Your task to perform on an android device: Search for razer blade on walmart.com, select the first entry, add it to the cart, then select checkout. Image 0: 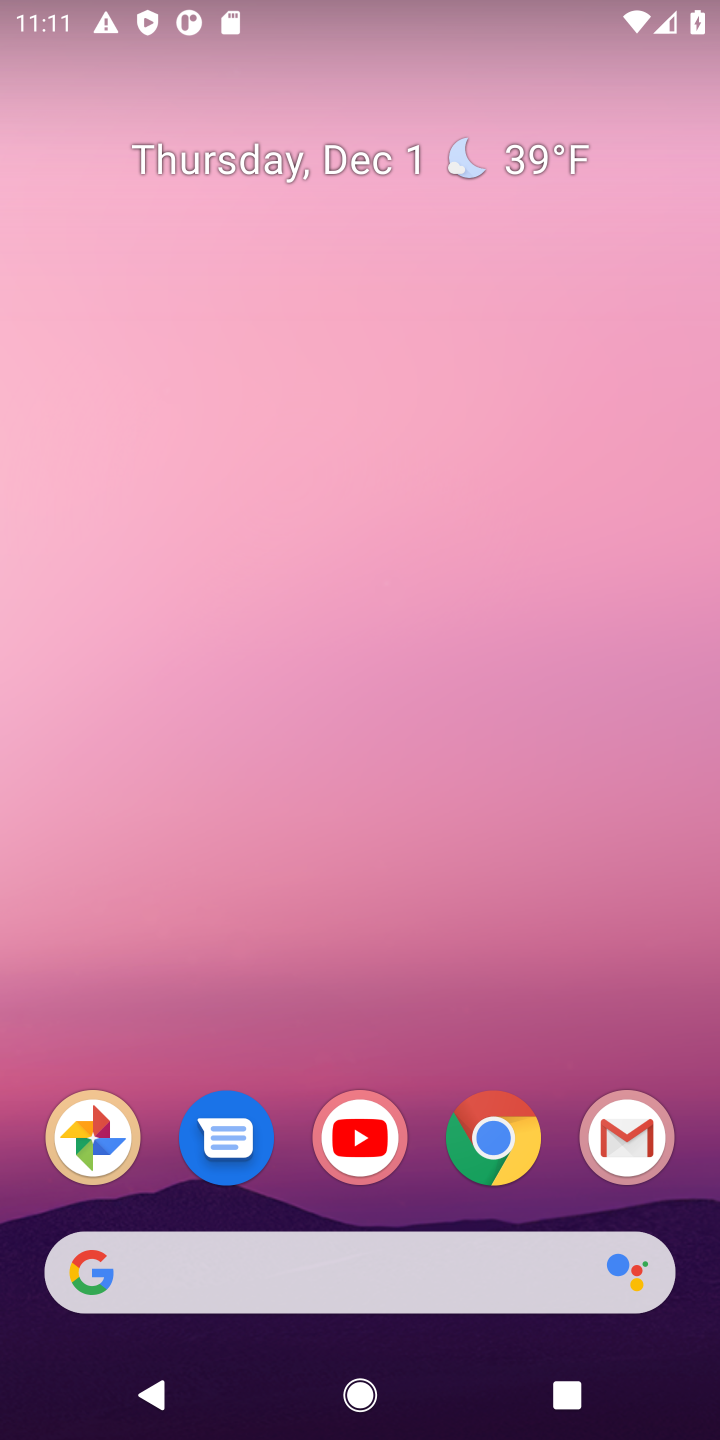
Step 0: drag from (374, 1075) to (437, 377)
Your task to perform on an android device: Search for razer blade on walmart.com, select the first entry, add it to the cart, then select checkout. Image 1: 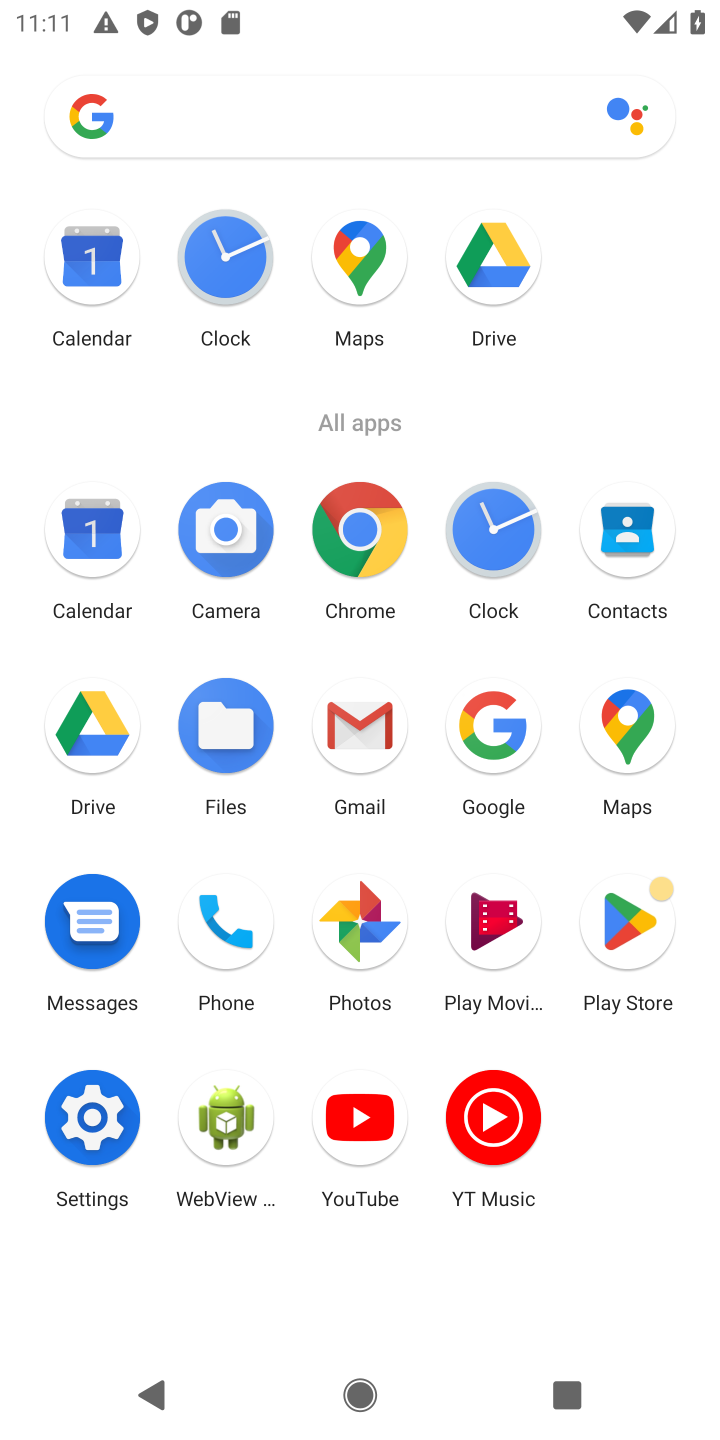
Step 1: click (474, 783)
Your task to perform on an android device: Search for razer blade on walmart.com, select the first entry, add it to the cart, then select checkout. Image 2: 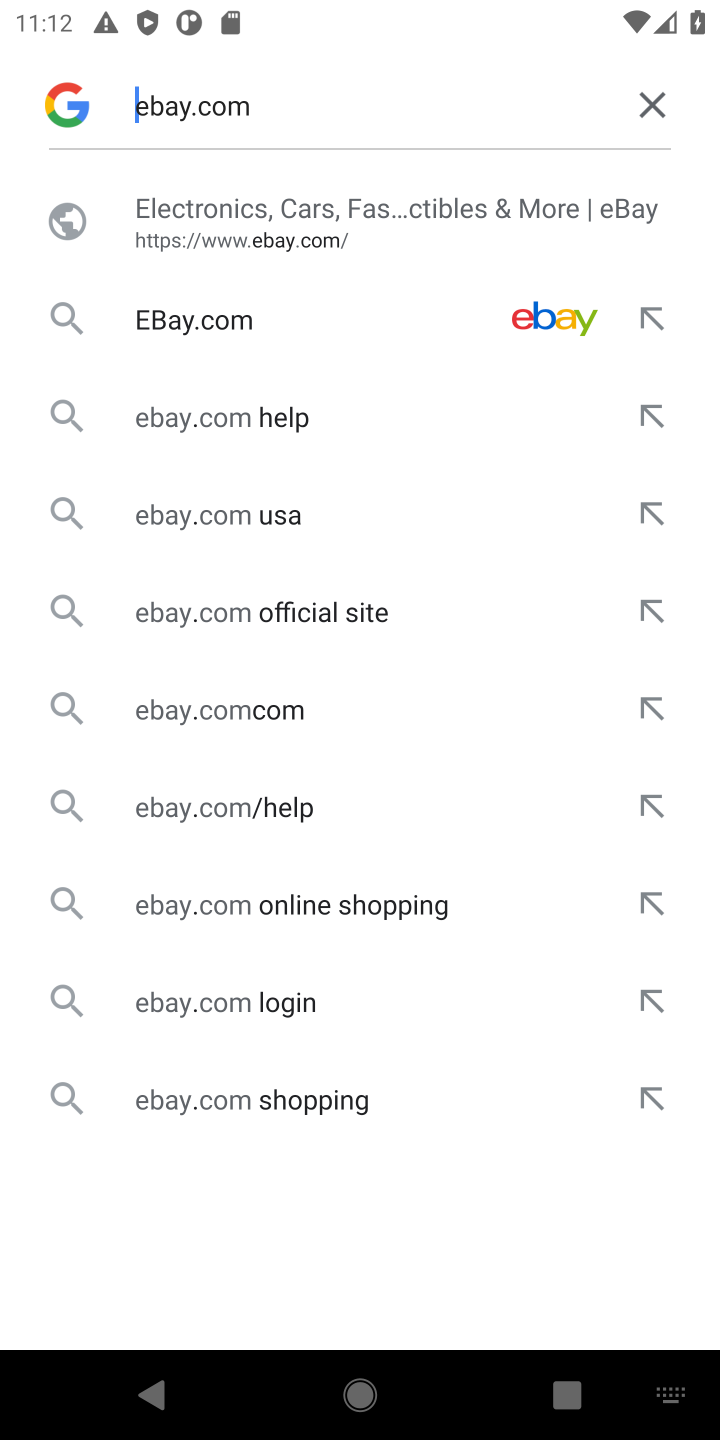
Step 2: click (640, 93)
Your task to perform on an android device: Search for razer blade on walmart.com, select the first entry, add it to the cart, then select checkout. Image 3: 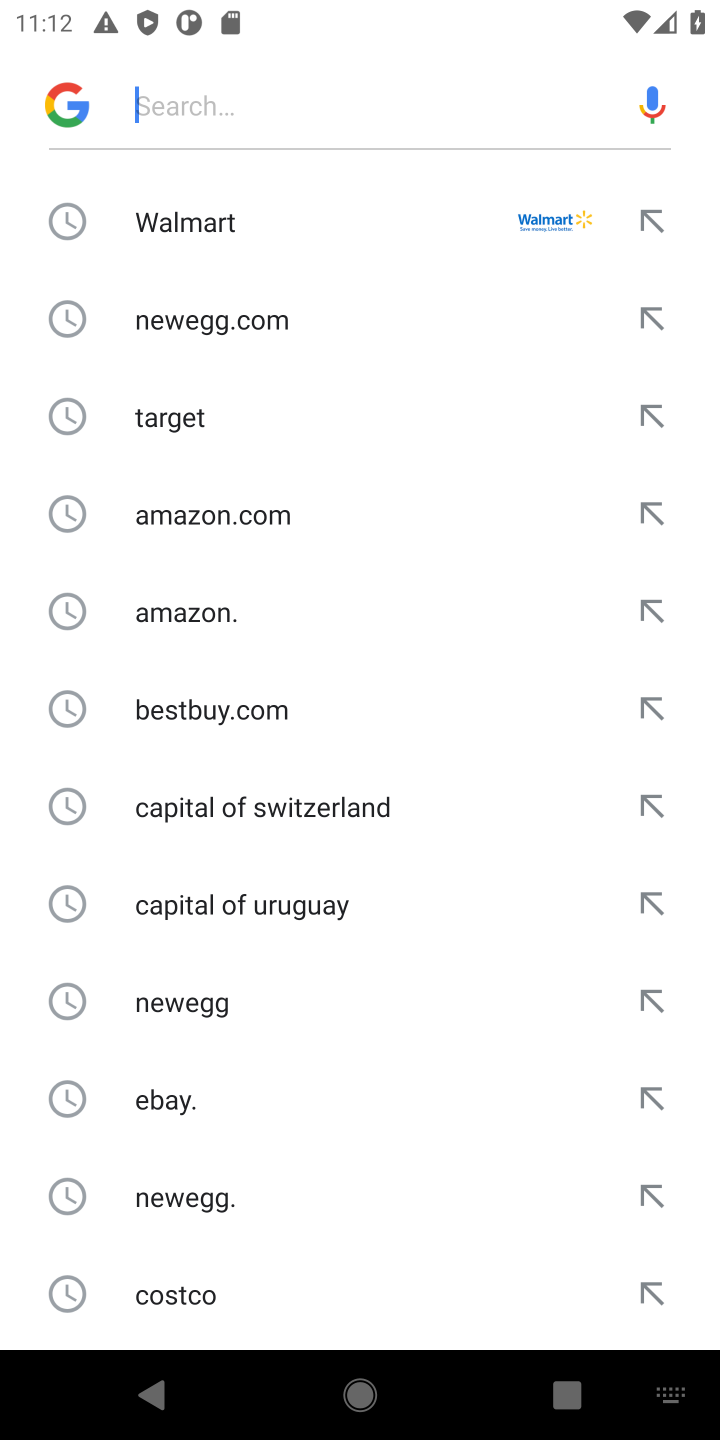
Step 3: type "walmart.com"
Your task to perform on an android device: Search for razer blade on walmart.com, select the first entry, add it to the cart, then select checkout. Image 4: 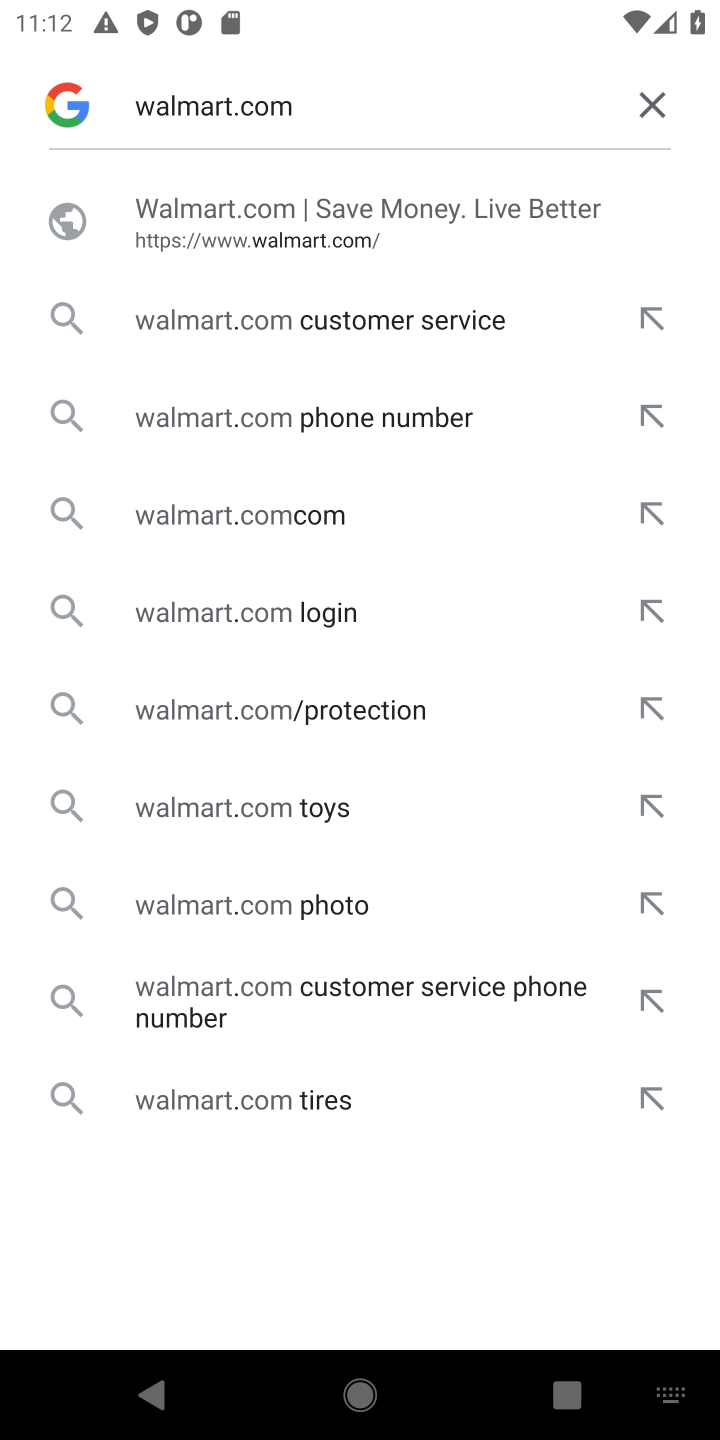
Step 4: click (385, 230)
Your task to perform on an android device: Search for razer blade on walmart.com, select the first entry, add it to the cart, then select checkout. Image 5: 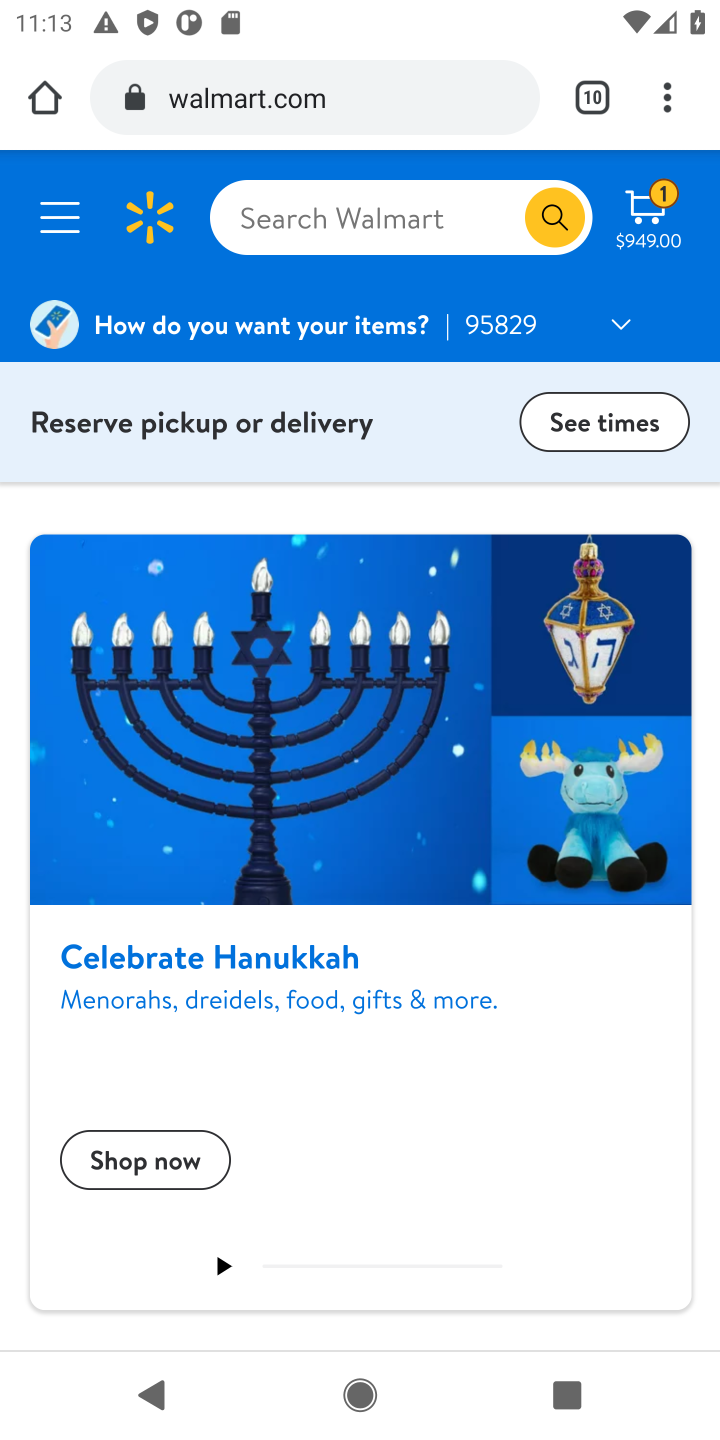
Step 5: drag from (401, 1143) to (486, 610)
Your task to perform on an android device: Search for razer blade on walmart.com, select the first entry, add it to the cart, then select checkout. Image 6: 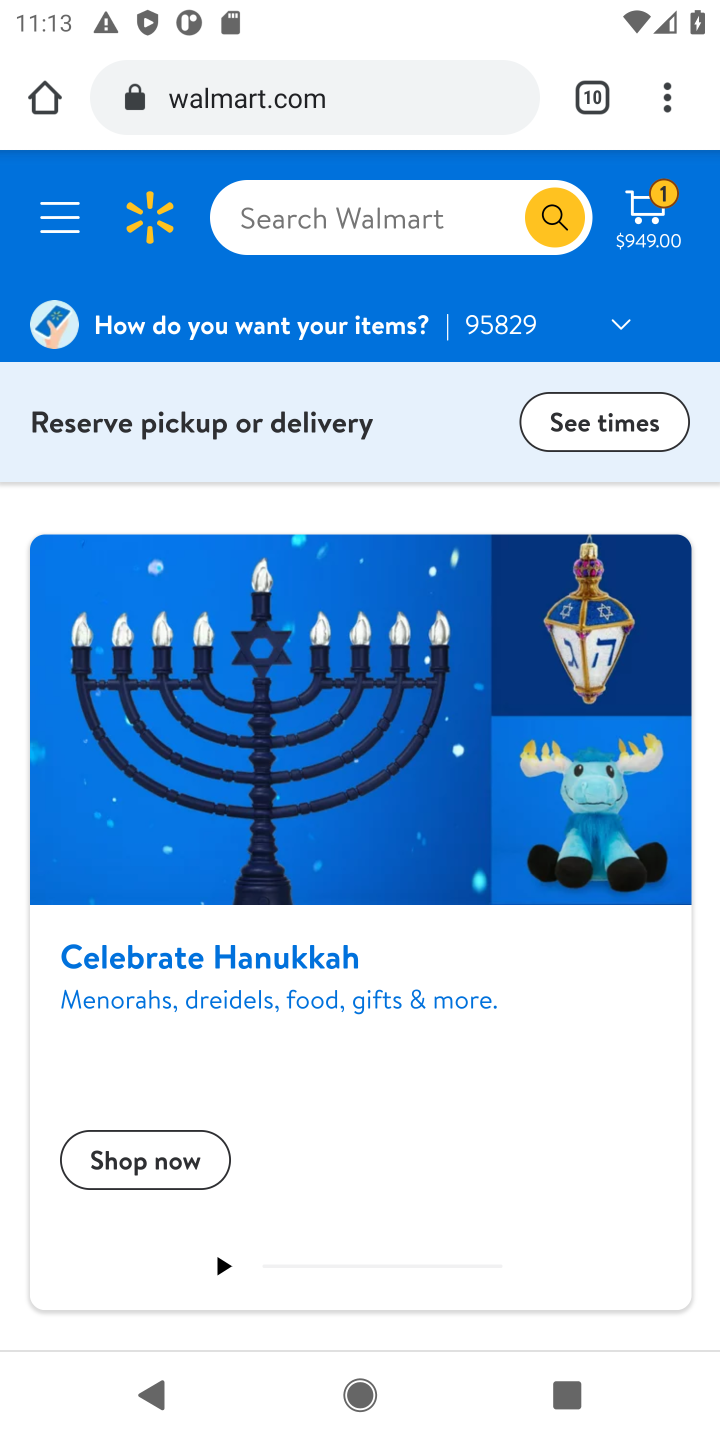
Step 6: drag from (473, 995) to (568, 175)
Your task to perform on an android device: Search for razer blade on walmart.com, select the first entry, add it to the cart, then select checkout. Image 7: 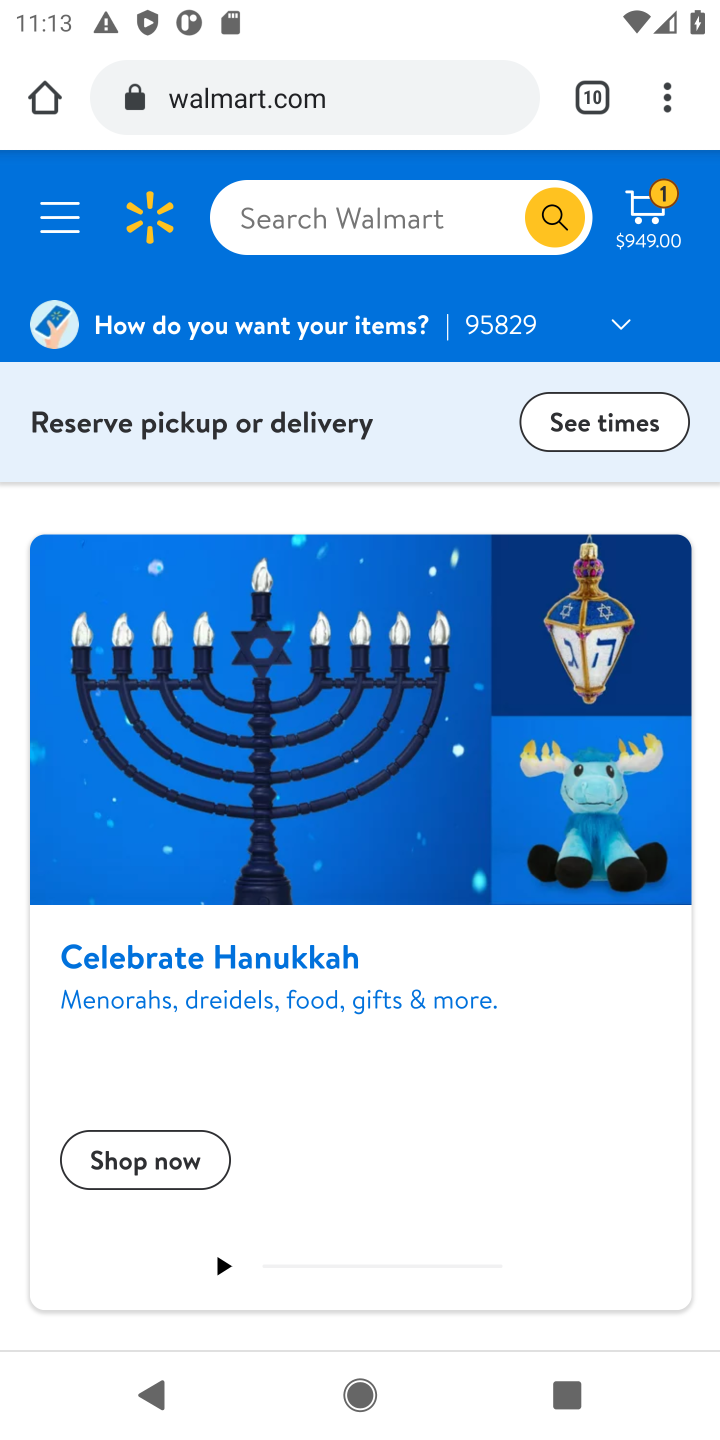
Step 7: click (408, 220)
Your task to perform on an android device: Search for razer blade on walmart.com, select the first entry, add it to the cart, then select checkout. Image 8: 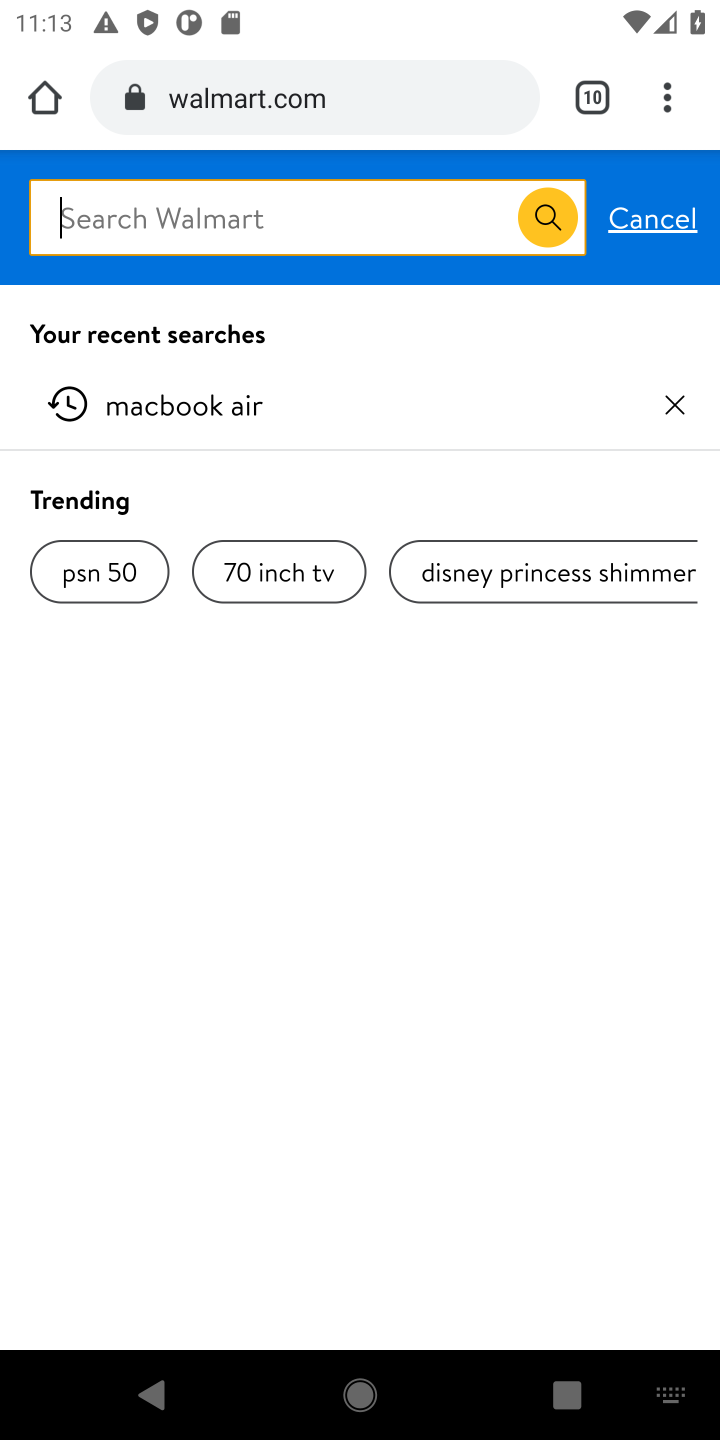
Step 8: type "razer blade"
Your task to perform on an android device: Search for razer blade on walmart.com, select the first entry, add it to the cart, then select checkout. Image 9: 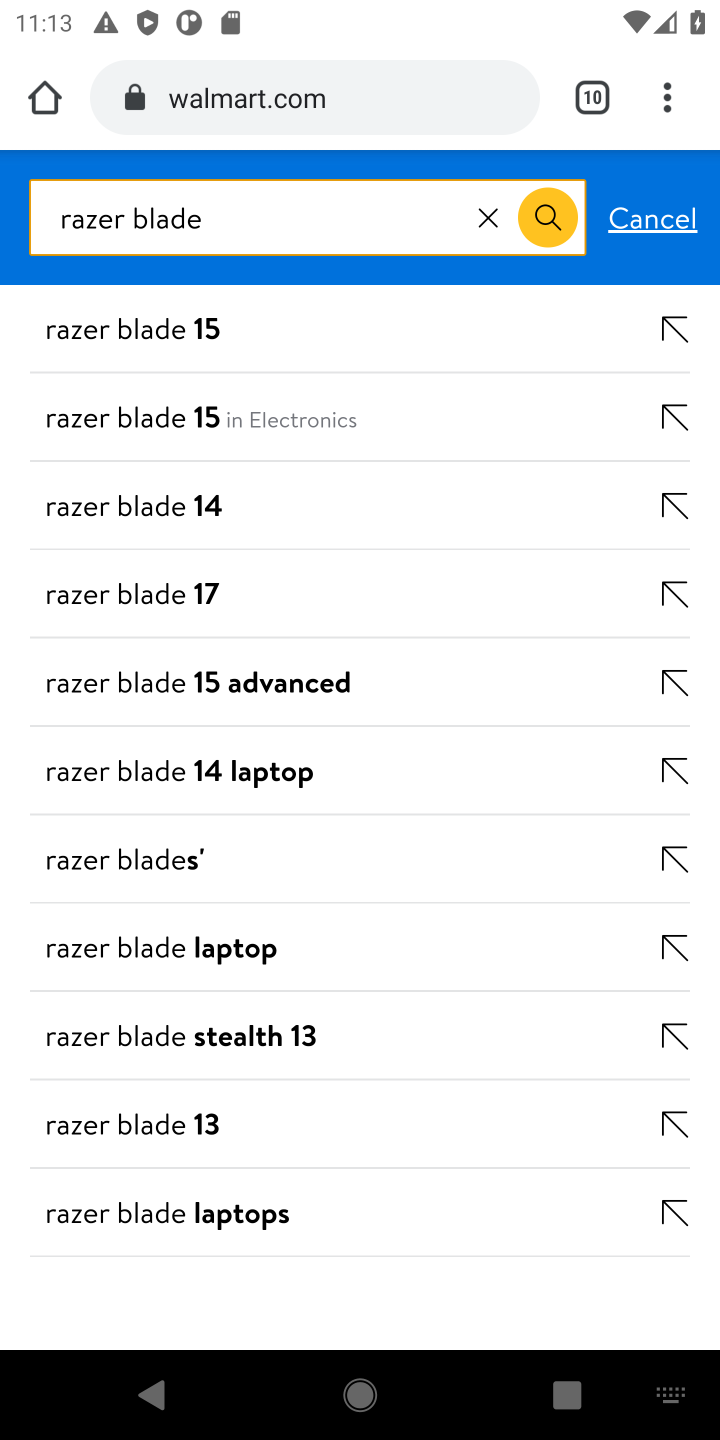
Step 9: click (265, 849)
Your task to perform on an android device: Search for razer blade on walmart.com, select the first entry, add it to the cart, then select checkout. Image 10: 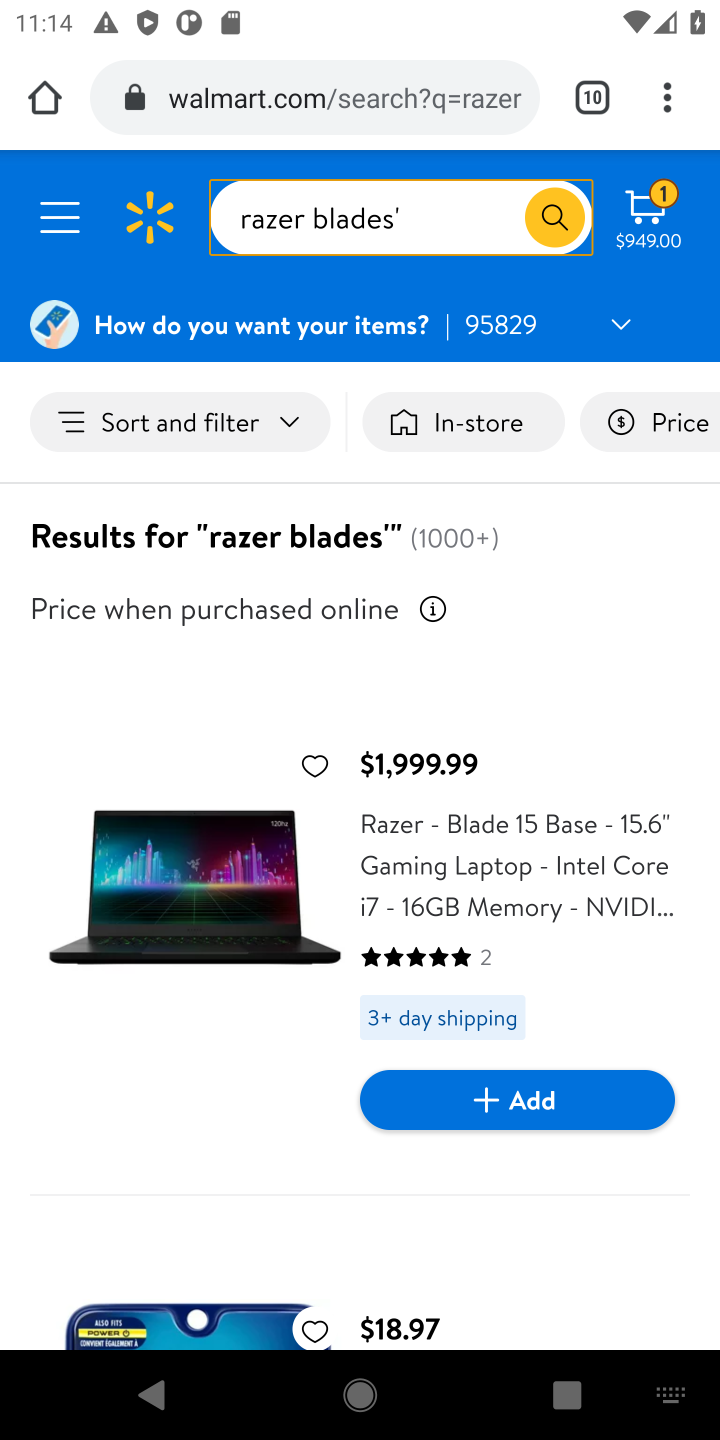
Step 10: click (582, 1118)
Your task to perform on an android device: Search for razer blade on walmart.com, select the first entry, add it to the cart, then select checkout. Image 11: 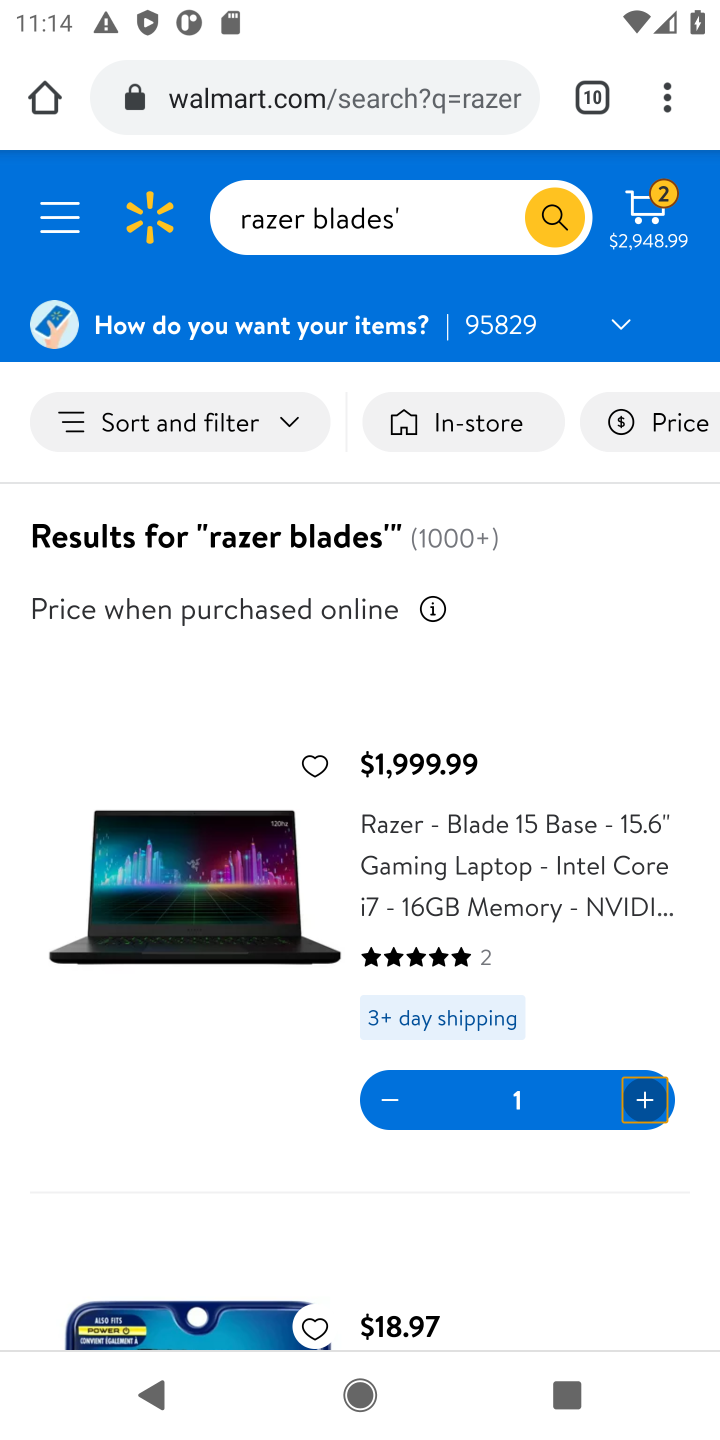
Step 11: click (665, 210)
Your task to perform on an android device: Search for razer blade on walmart.com, select the first entry, add it to the cart, then select checkout. Image 12: 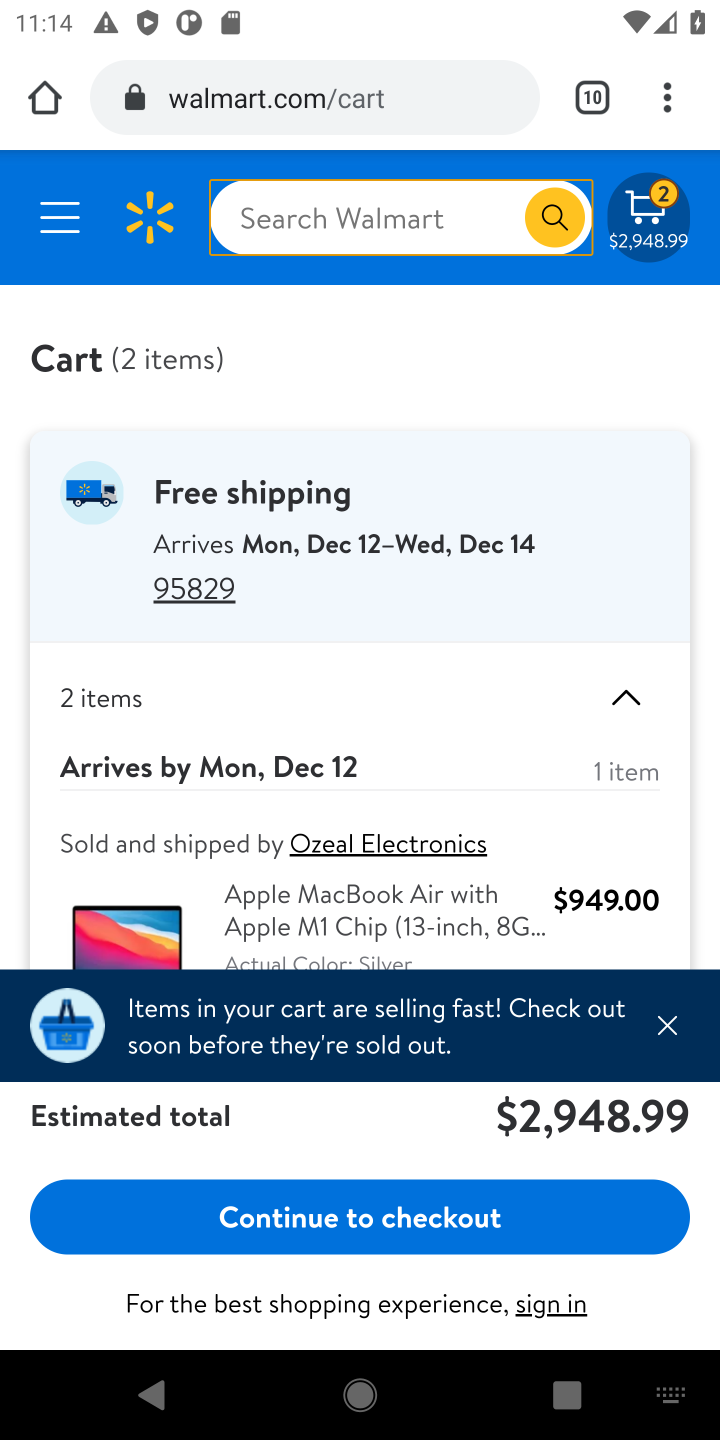
Step 12: click (404, 1214)
Your task to perform on an android device: Search for razer blade on walmart.com, select the first entry, add it to the cart, then select checkout. Image 13: 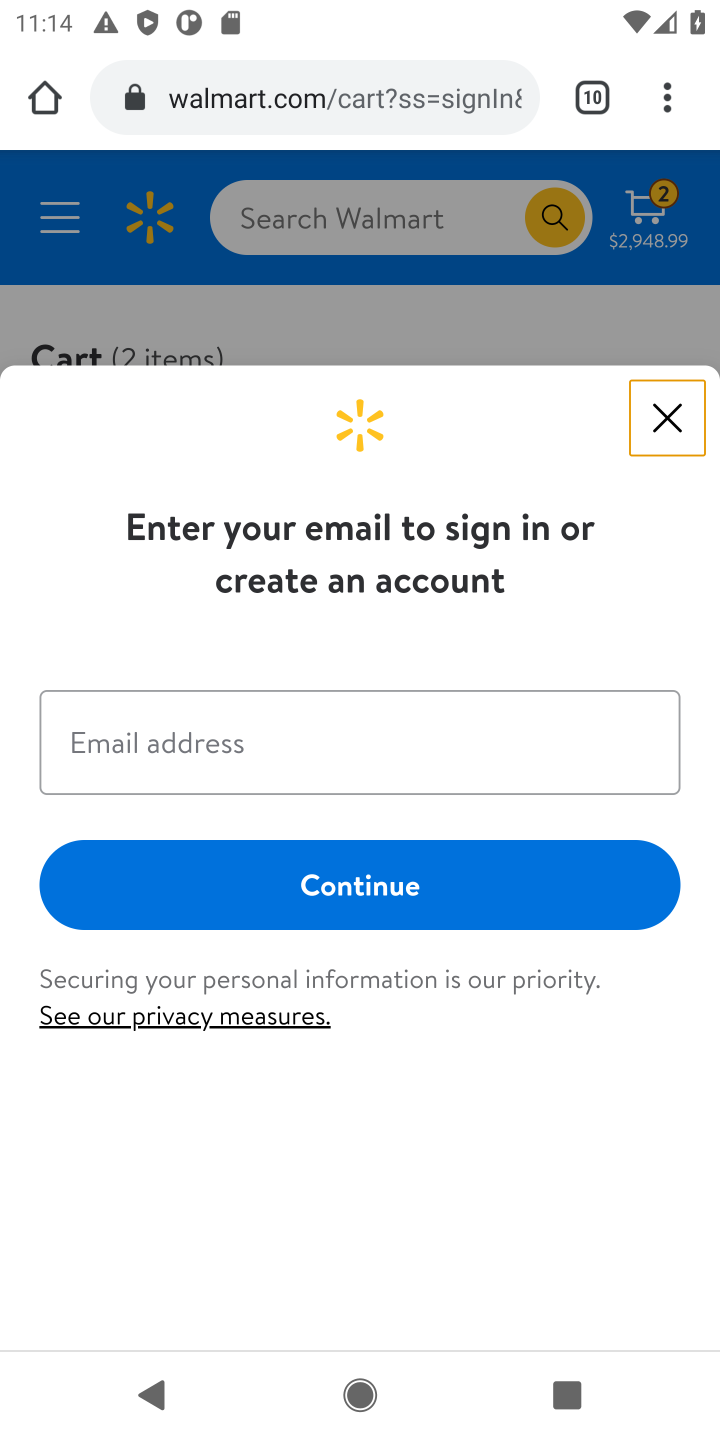
Step 13: task complete